Your task to perform on an android device: Open Chrome and go to settings Image 0: 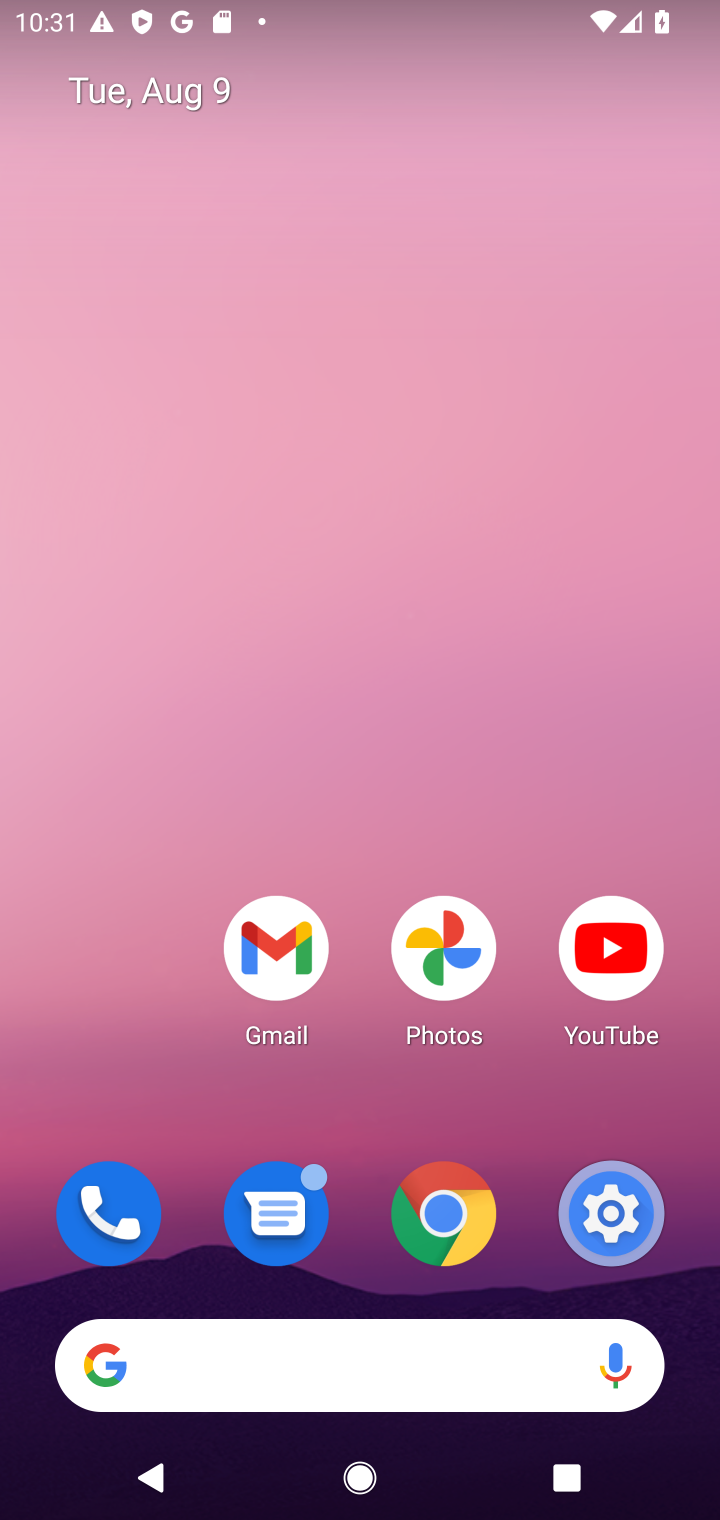
Step 0: click (473, 1218)
Your task to perform on an android device: Open Chrome and go to settings Image 1: 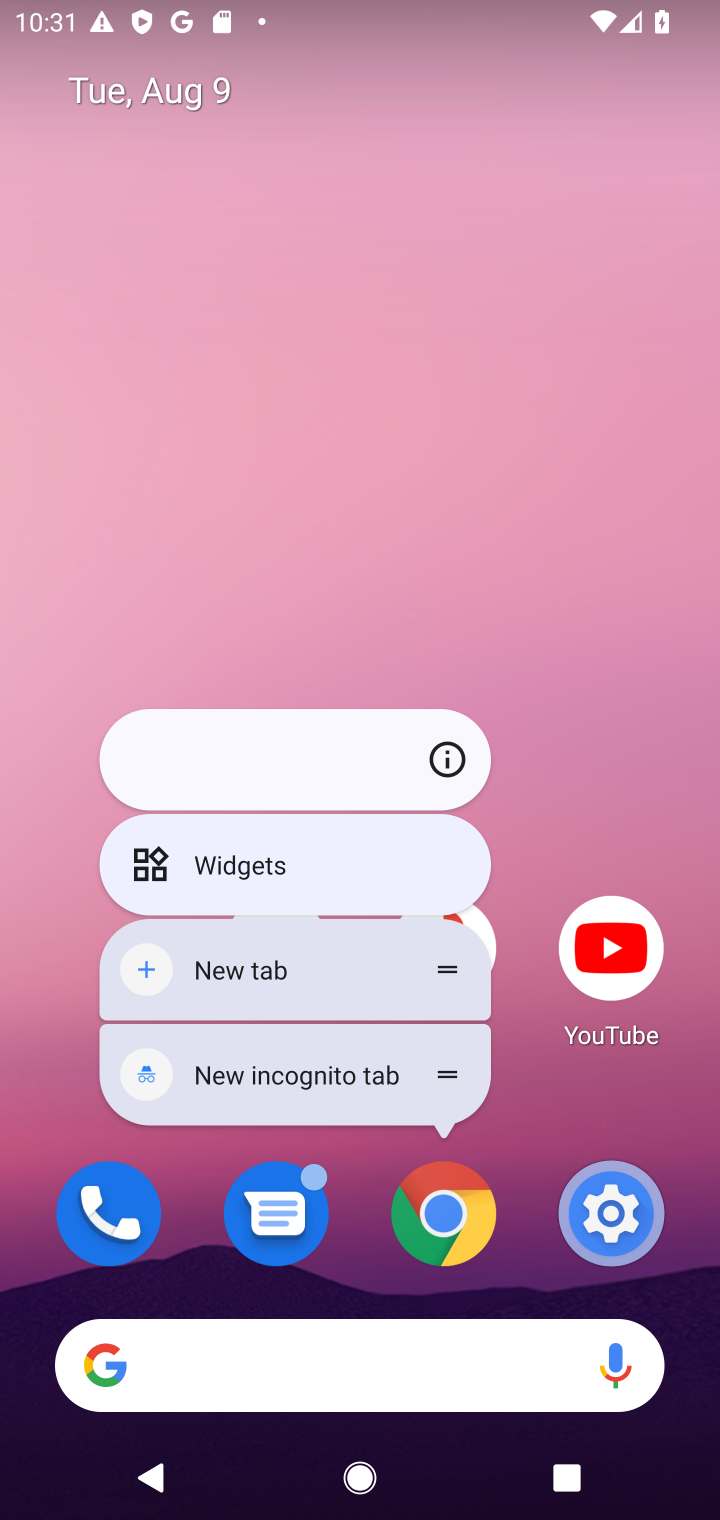
Step 1: click (440, 1225)
Your task to perform on an android device: Open Chrome and go to settings Image 2: 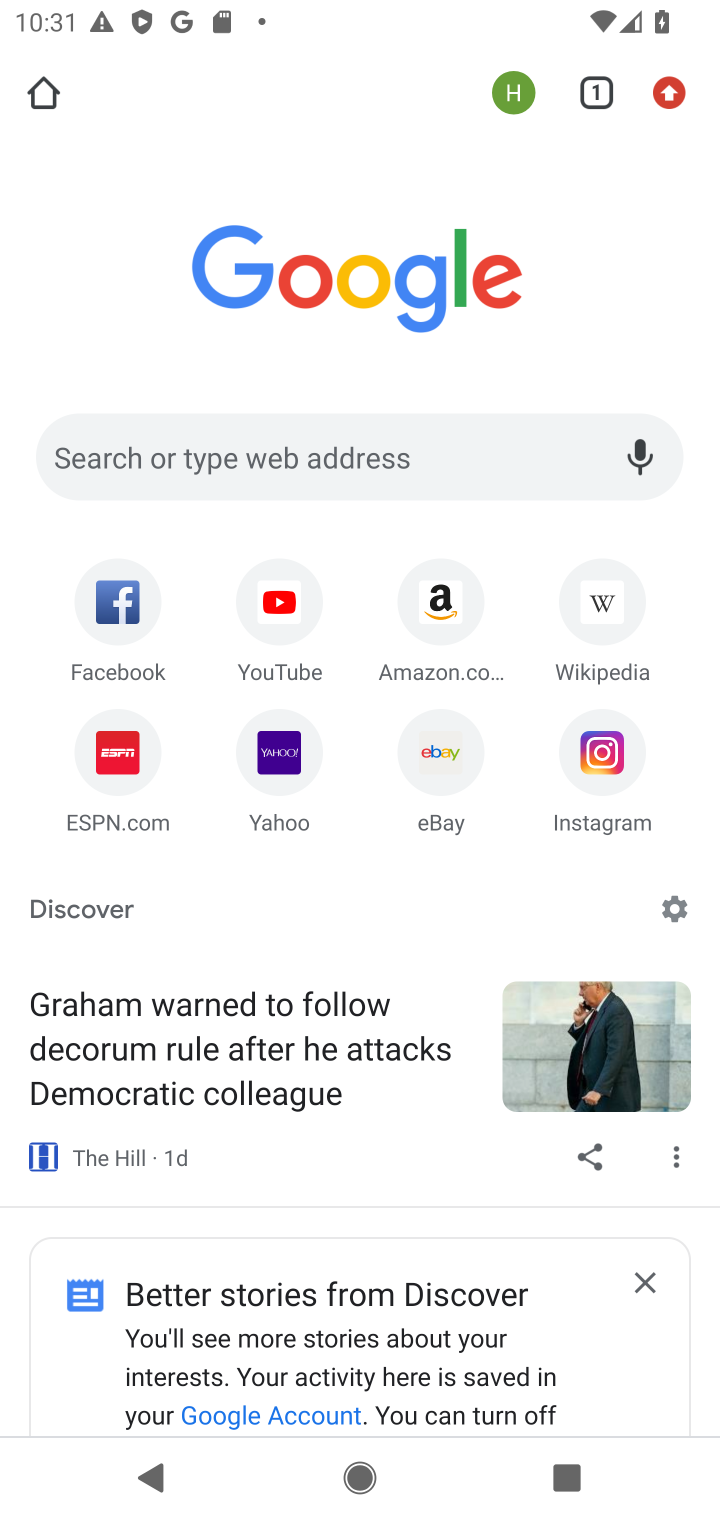
Step 2: task complete